Your task to perform on an android device: Search for Mexican restaurants on Maps Image 0: 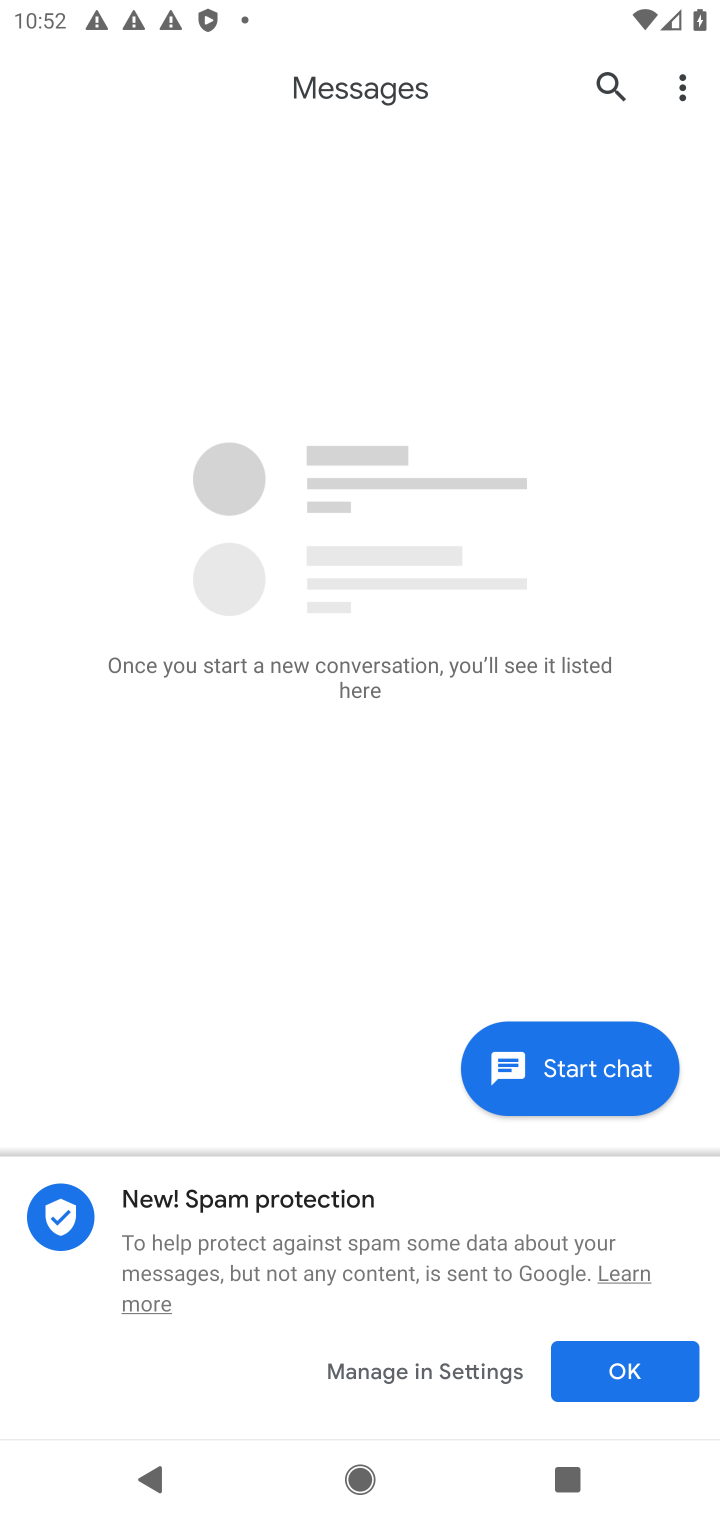
Step 0: press home button
Your task to perform on an android device: Search for Mexican restaurants on Maps Image 1: 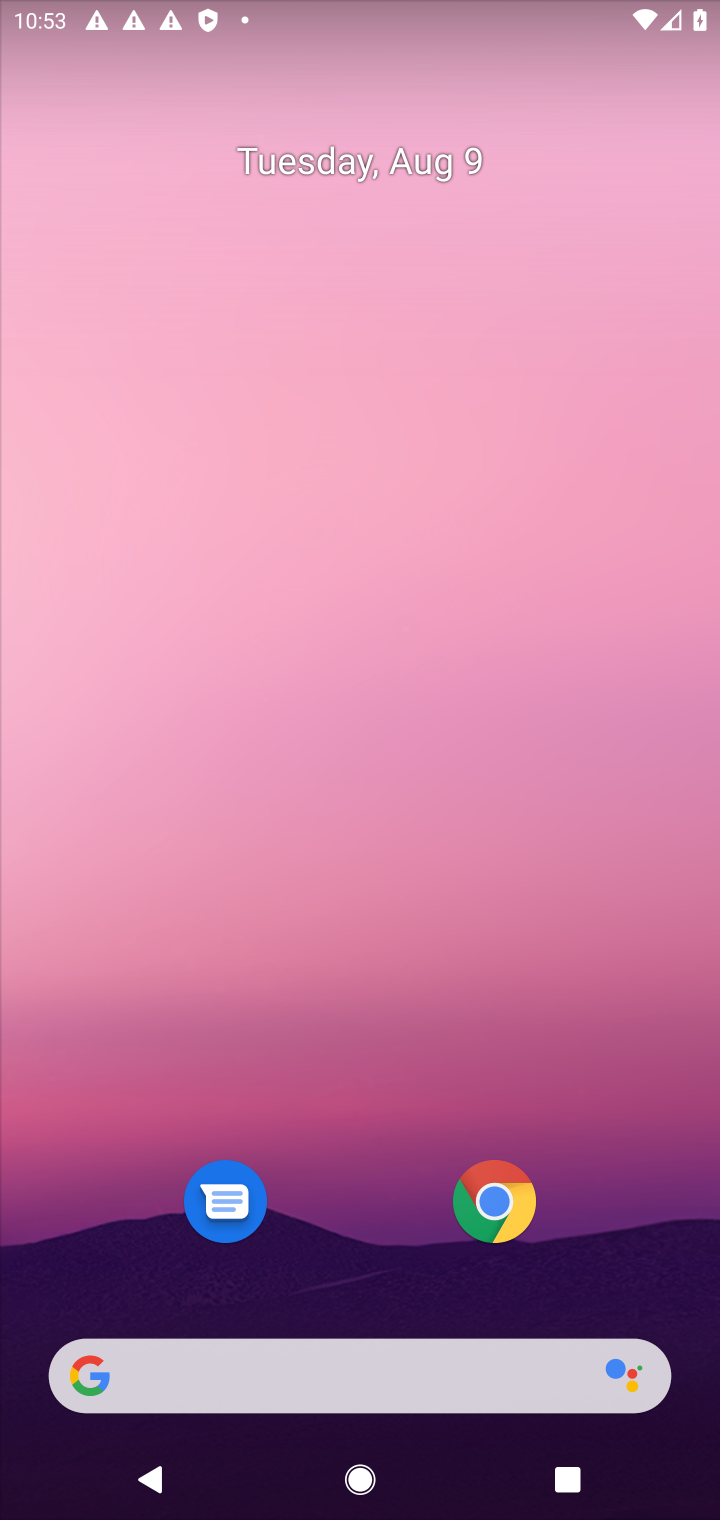
Step 1: drag from (335, 1194) to (304, 231)
Your task to perform on an android device: Search for Mexican restaurants on Maps Image 2: 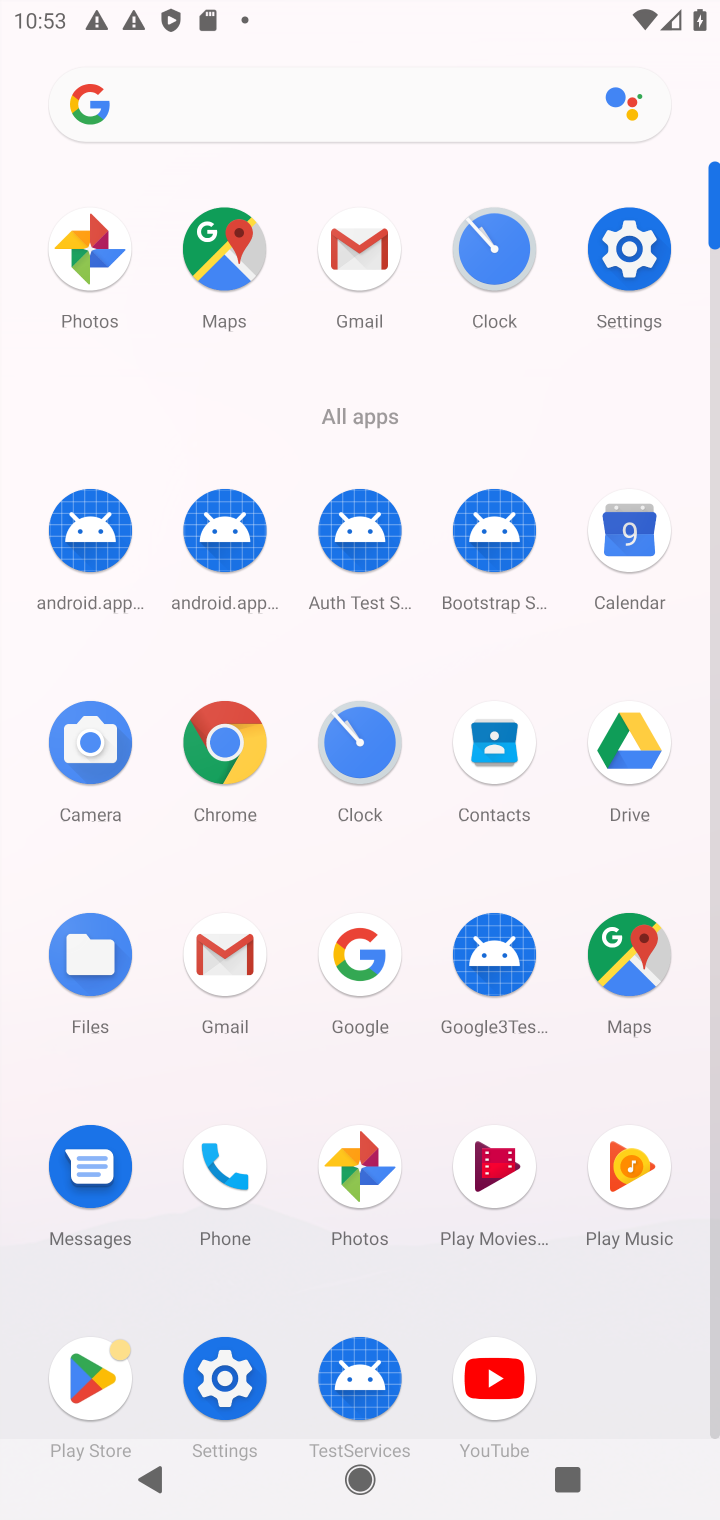
Step 2: click (233, 247)
Your task to perform on an android device: Search for Mexican restaurants on Maps Image 3: 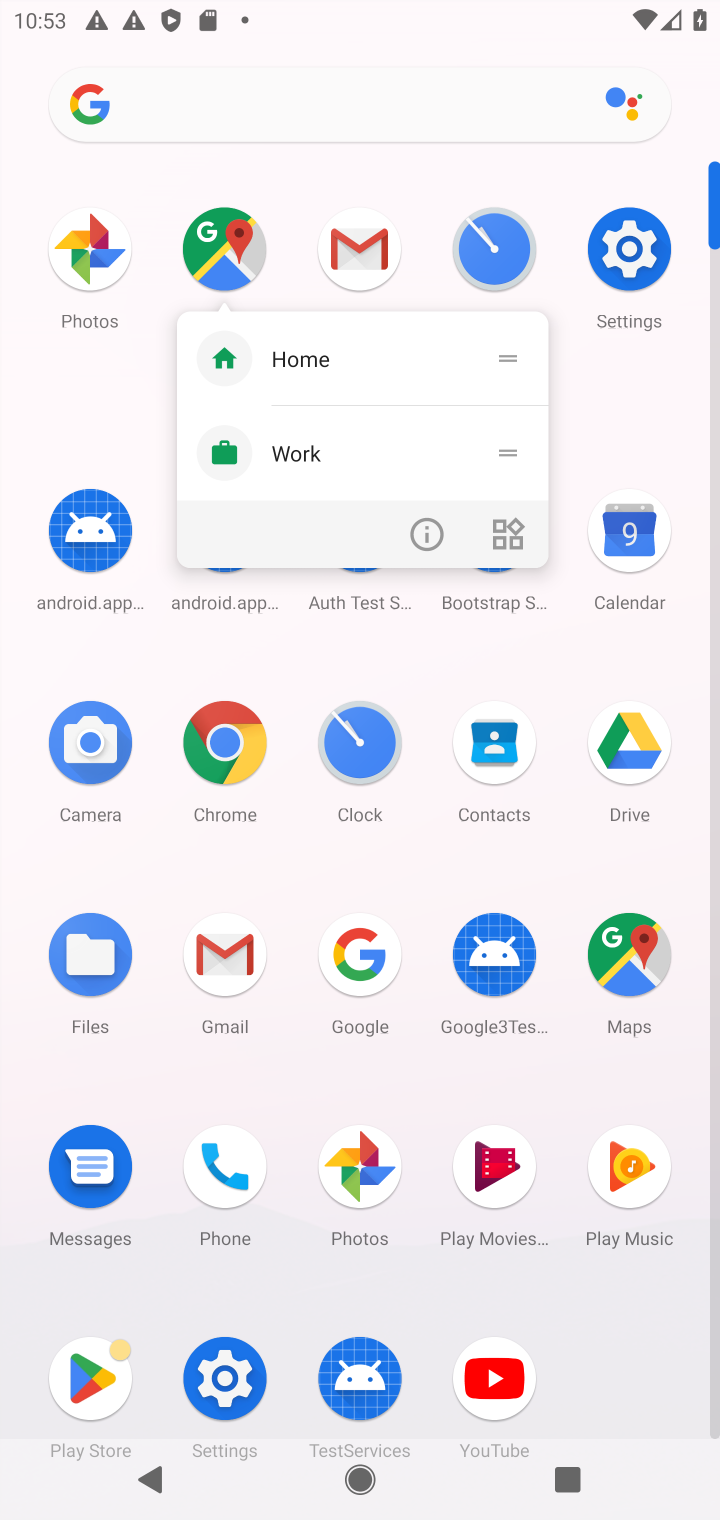
Step 3: click (213, 234)
Your task to perform on an android device: Search for Mexican restaurants on Maps Image 4: 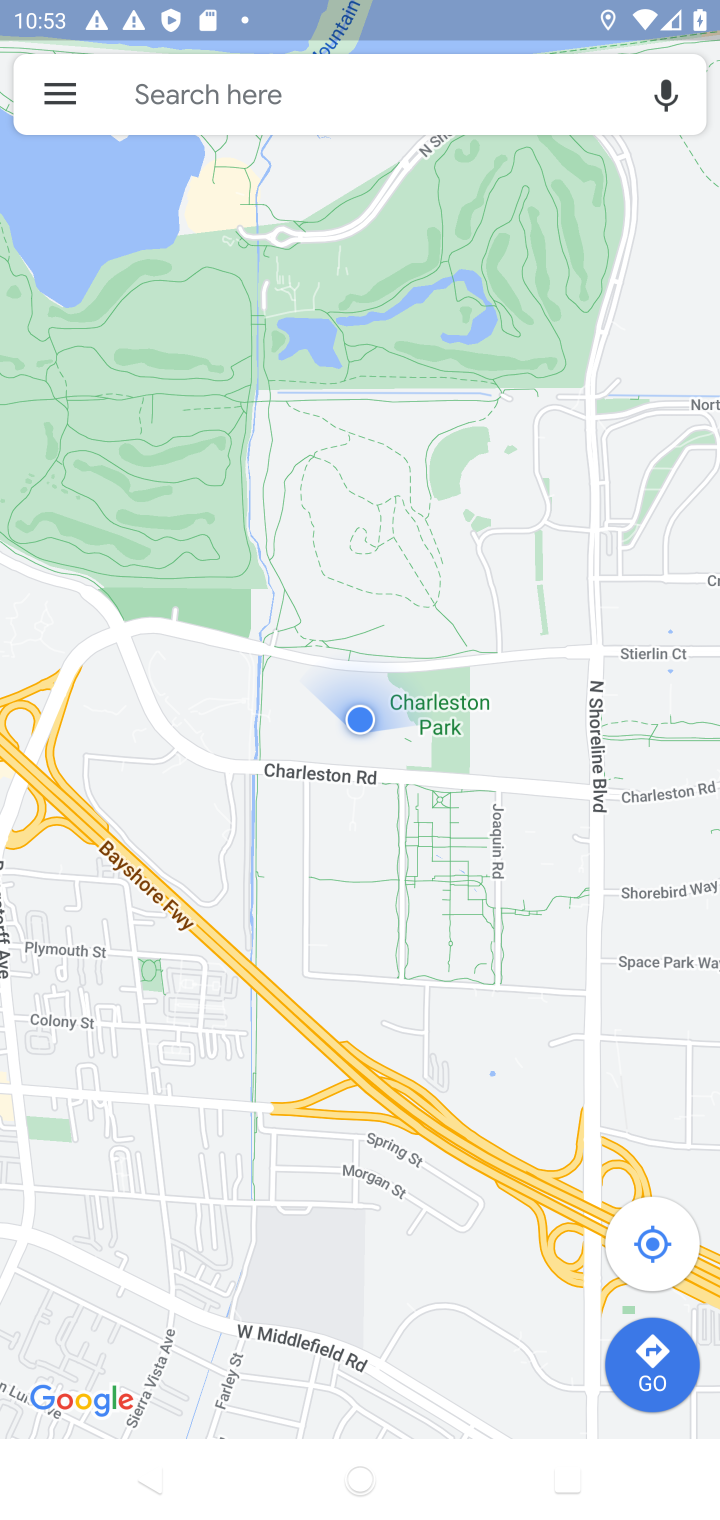
Step 4: click (190, 101)
Your task to perform on an android device: Search for Mexican restaurants on Maps Image 5: 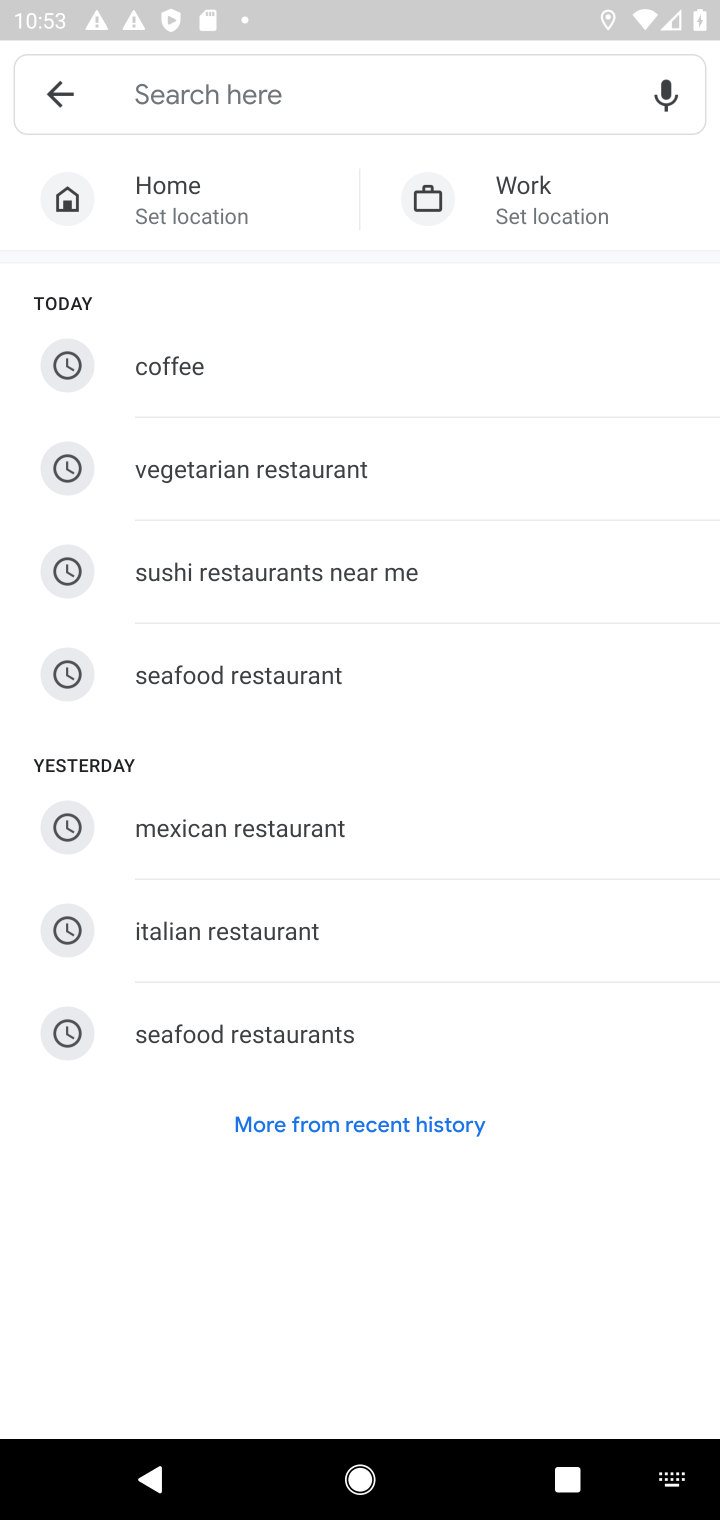
Step 5: type " Mexican restaurants"
Your task to perform on an android device: Search for Mexican restaurants on Maps Image 6: 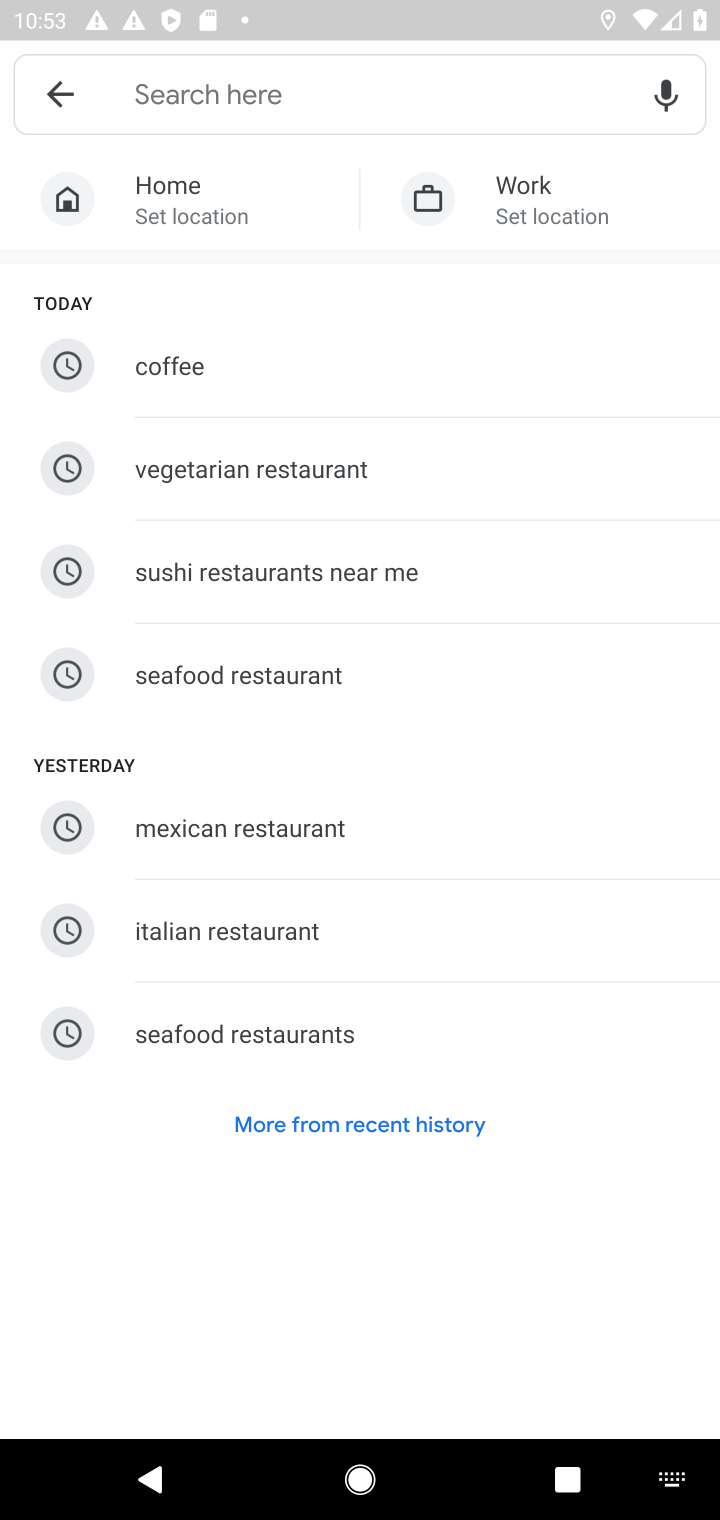
Step 6: click (243, 78)
Your task to perform on an android device: Search for Mexican restaurants on Maps Image 7: 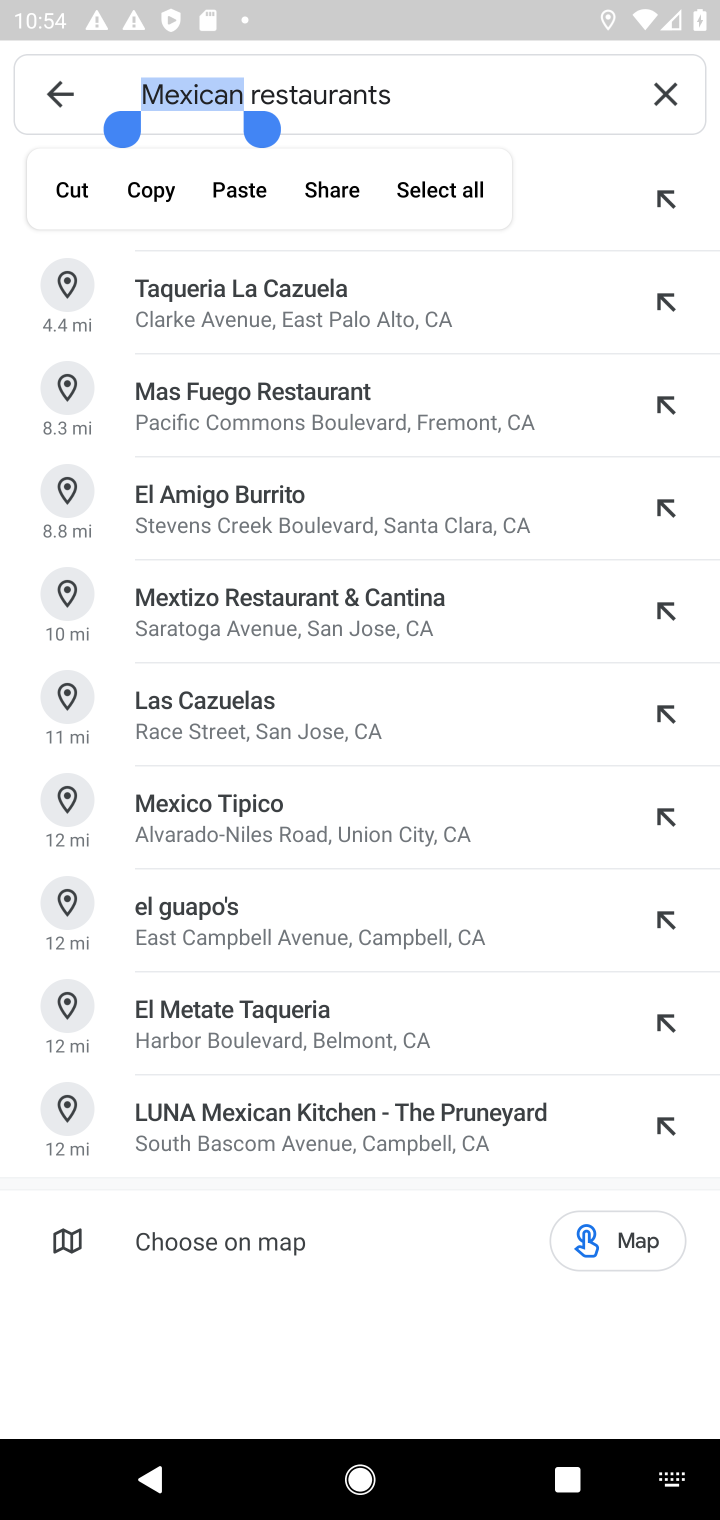
Step 7: press enter
Your task to perform on an android device: Search for Mexican restaurants on Maps Image 8: 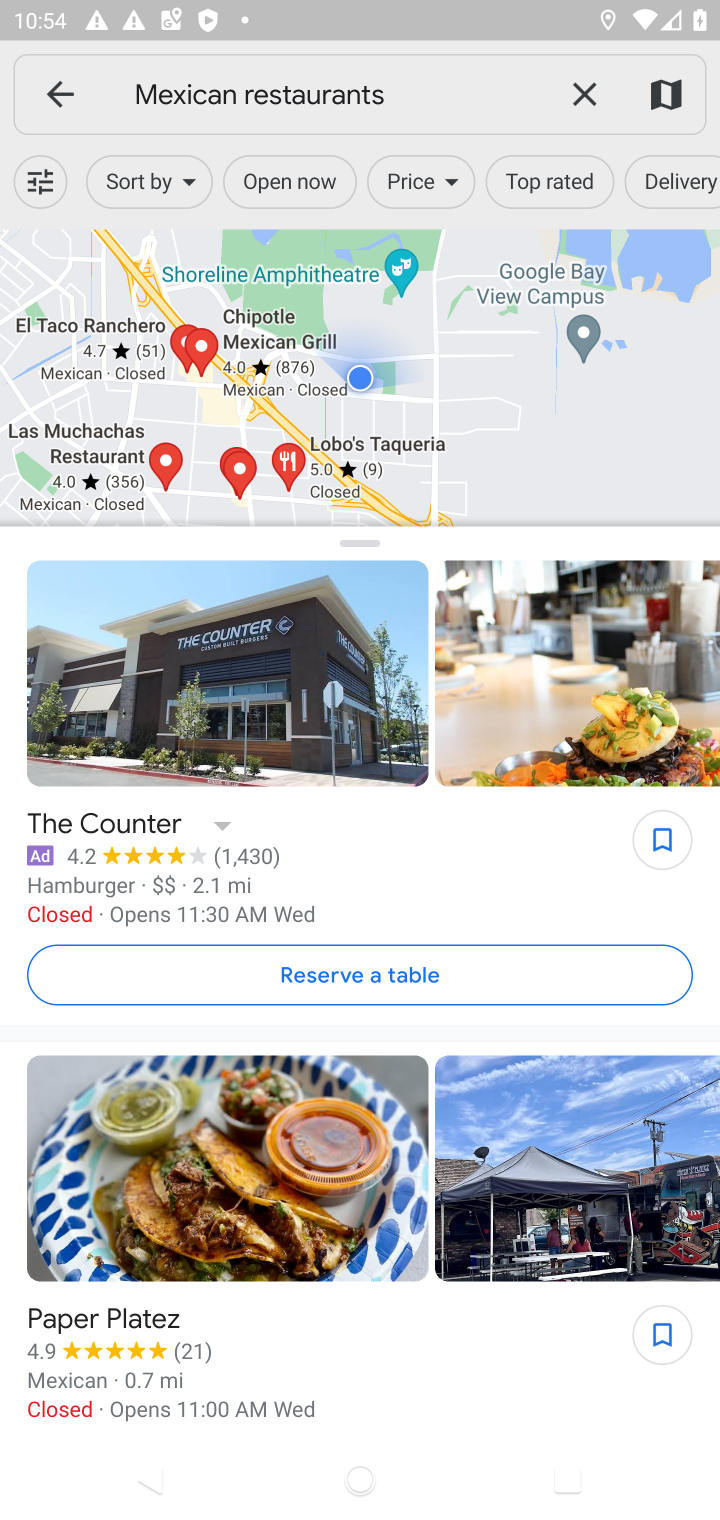
Step 8: task complete